Your task to perform on an android device: Search for flights from Sydney to Helsinki Image 0: 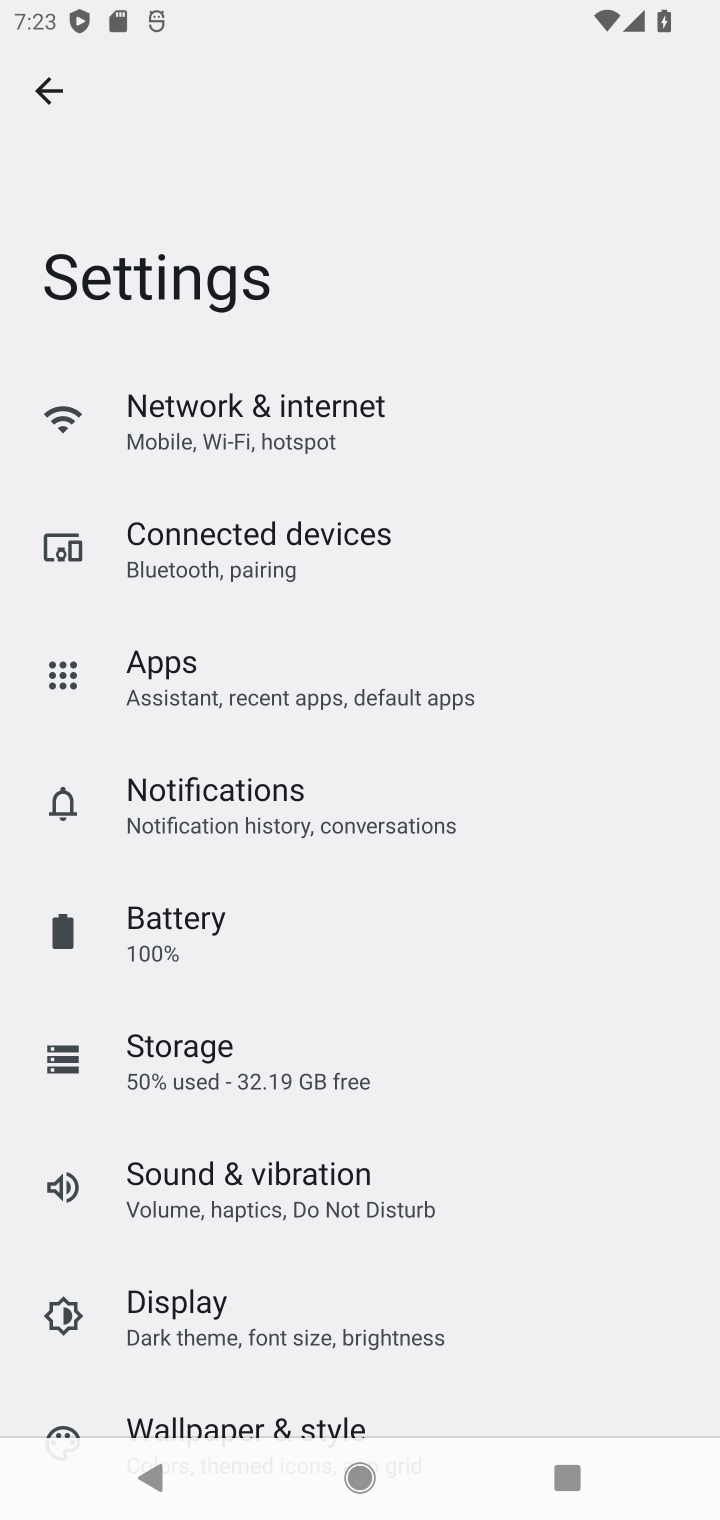
Step 0: press home button
Your task to perform on an android device: Search for flights from Sydney to Helsinki Image 1: 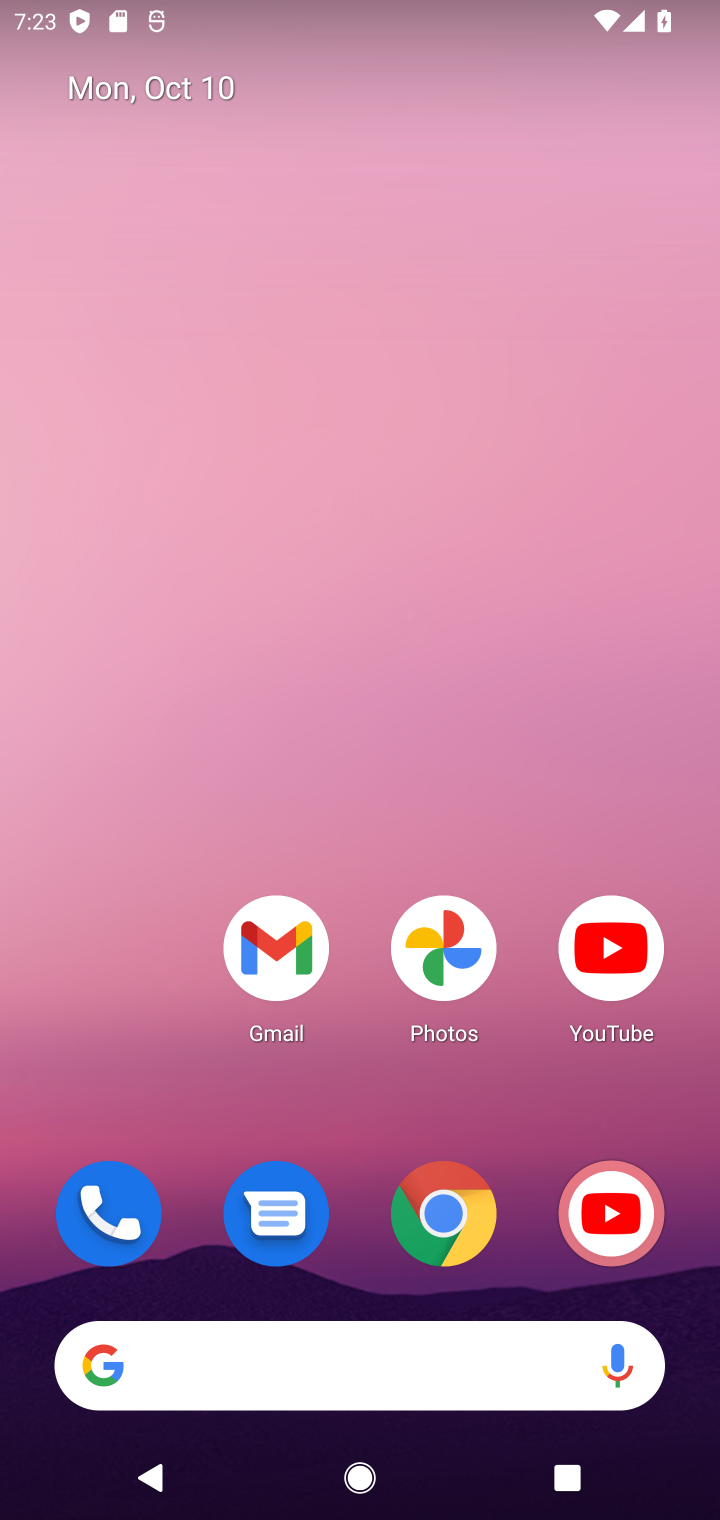
Step 1: click (229, 1359)
Your task to perform on an android device: Search for flights from Sydney to Helsinki Image 2: 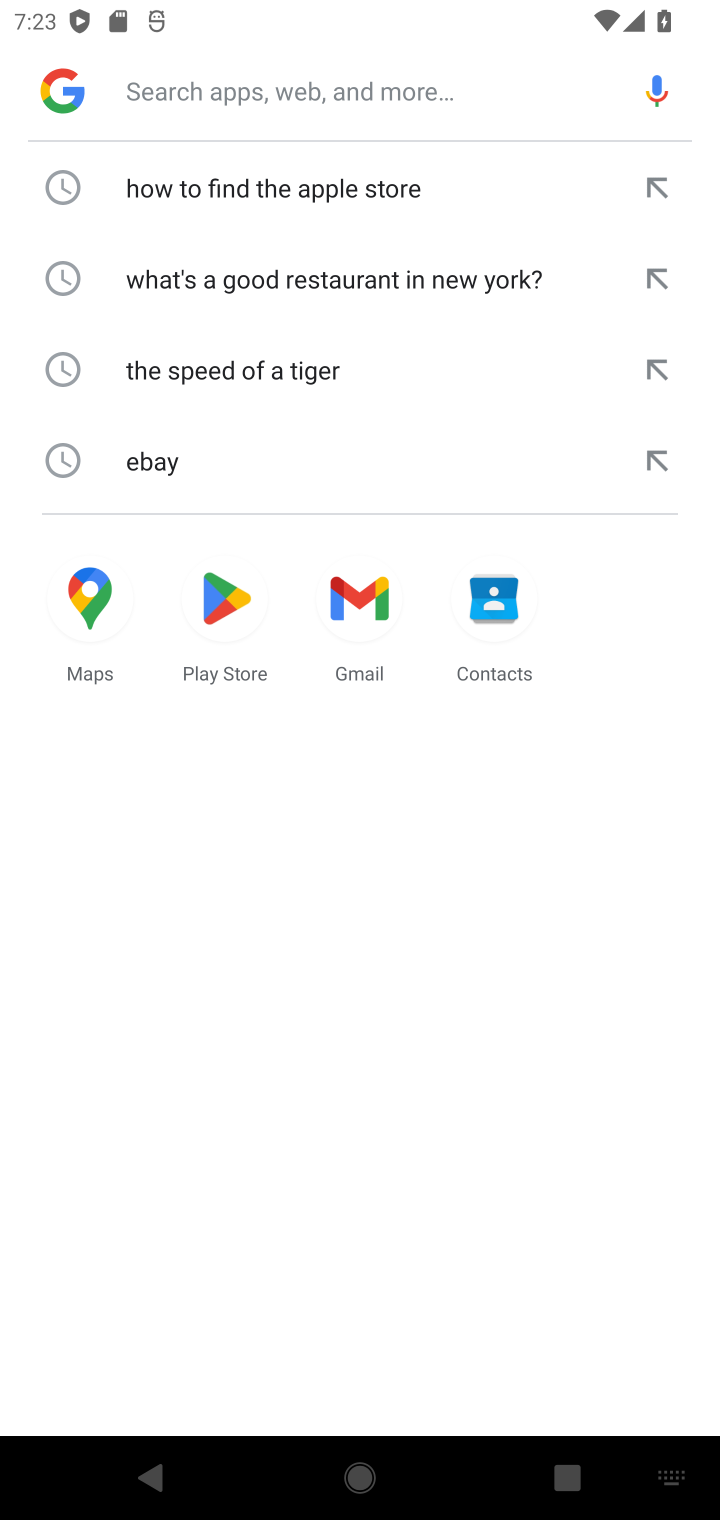
Step 2: click (177, 87)
Your task to perform on an android device: Search for flights from Sydney to Helsinki Image 3: 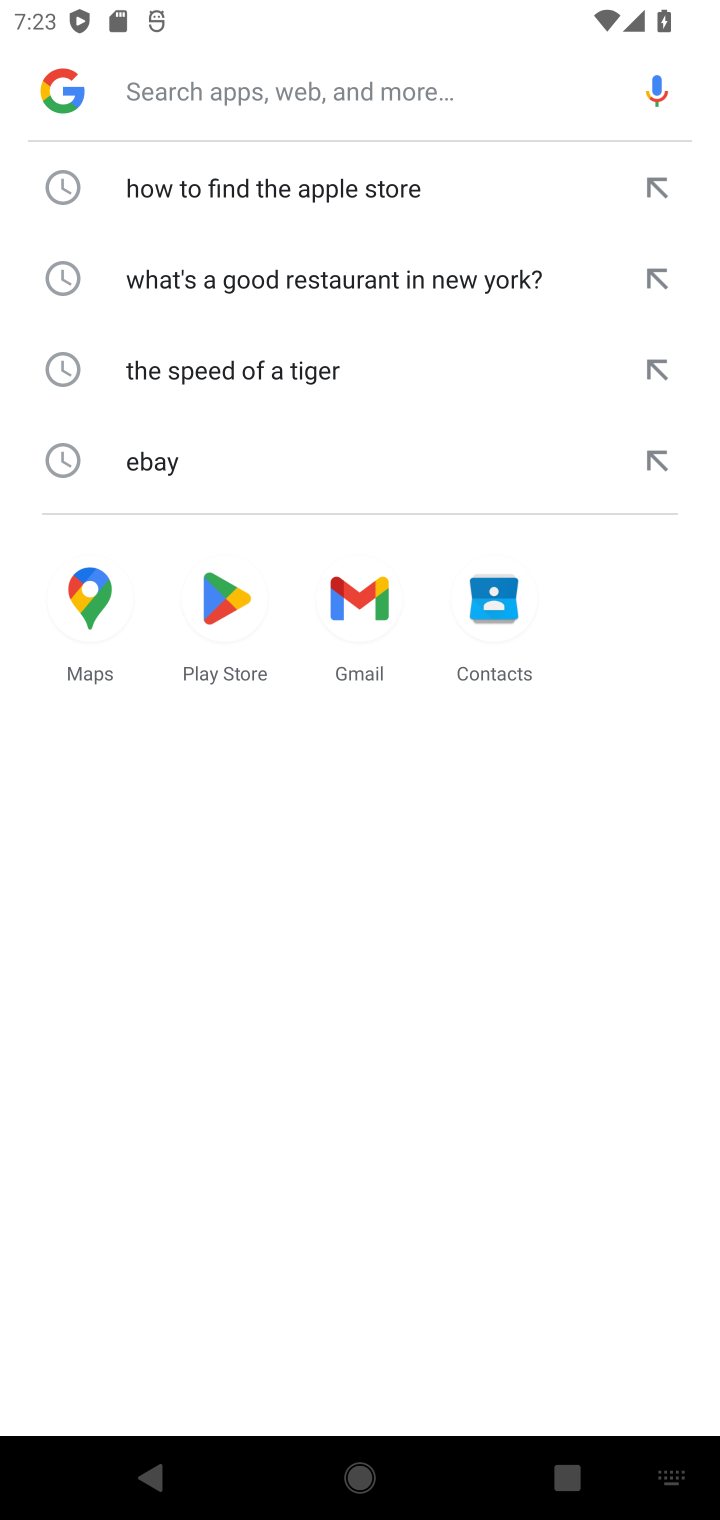
Step 3: type "flights from Sydney to Helsinki"
Your task to perform on an android device: Search for flights from Sydney to Helsinki Image 4: 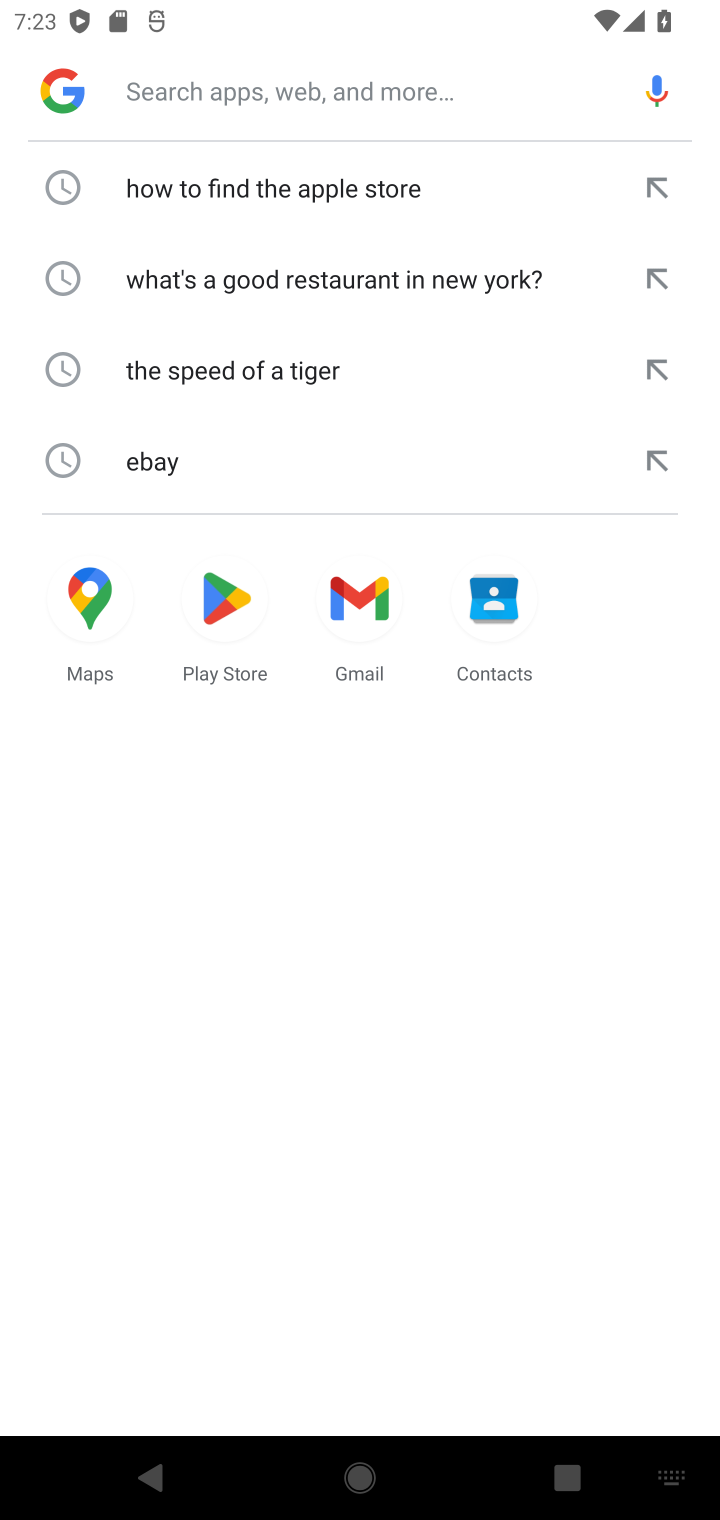
Step 4: click (369, 1345)
Your task to perform on an android device: Search for flights from Sydney to Helsinki Image 5: 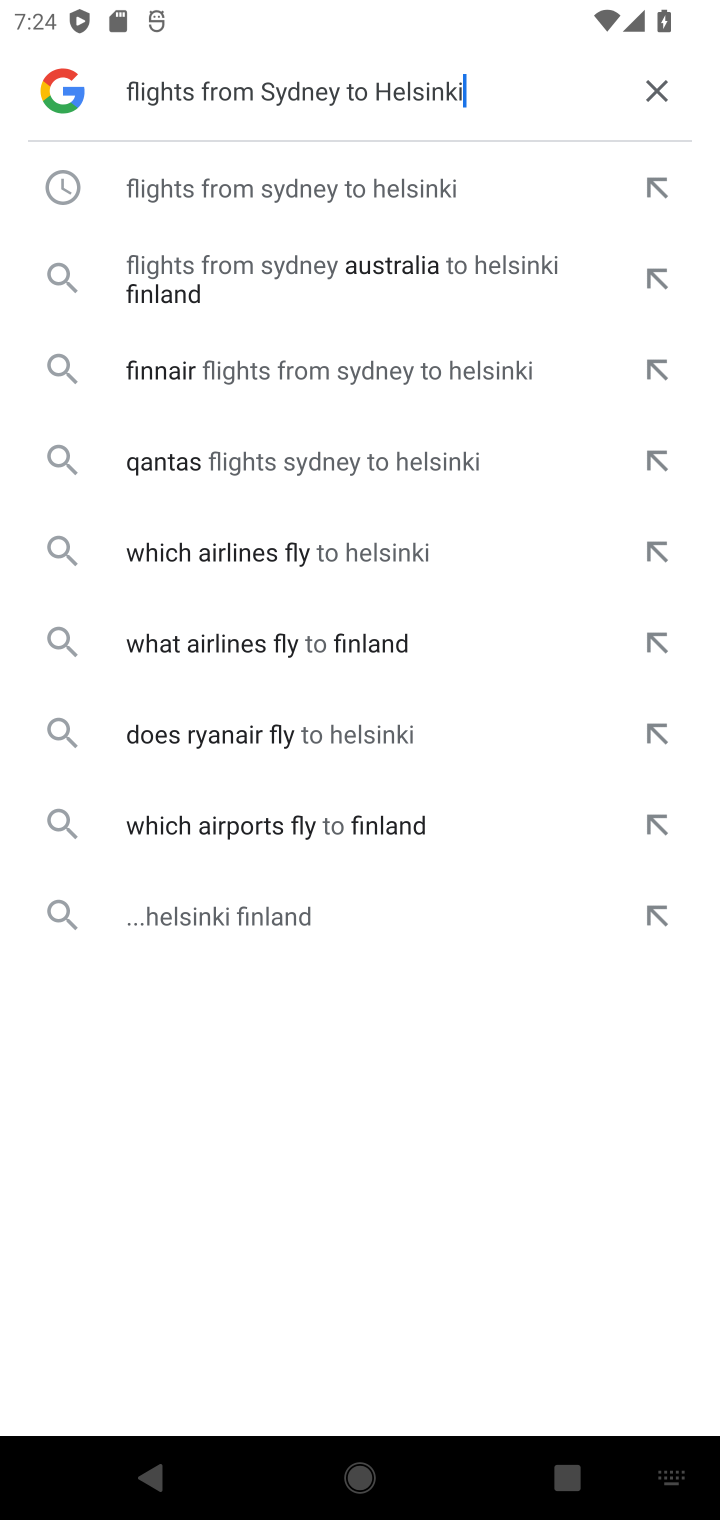
Step 5: click (260, 210)
Your task to perform on an android device: Search for flights from Sydney to Helsinki Image 6: 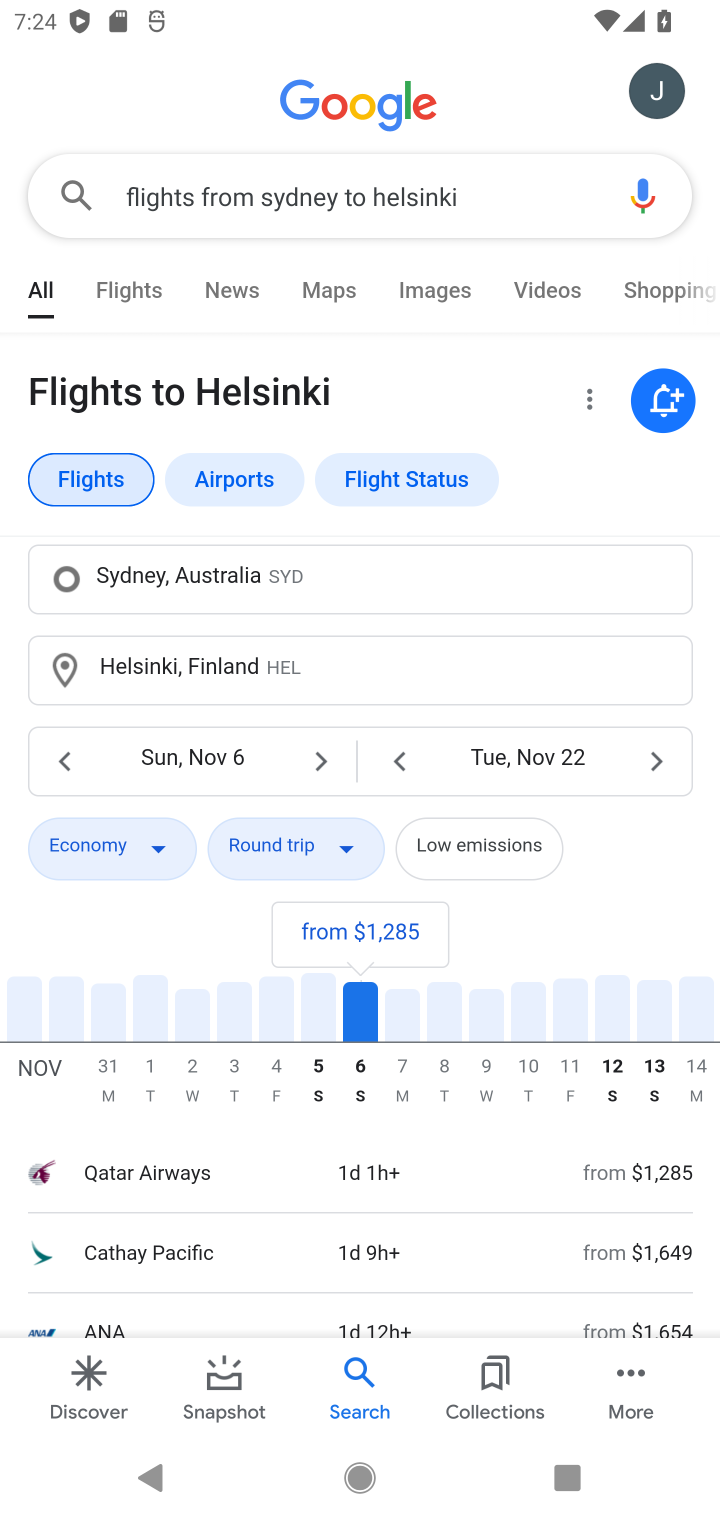
Step 6: task complete